Your task to perform on an android device: turn pop-ups on in chrome Image 0: 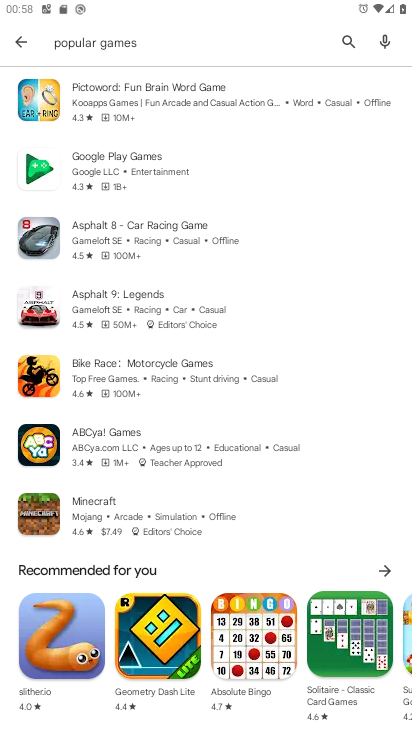
Step 0: press home button
Your task to perform on an android device: turn pop-ups on in chrome Image 1: 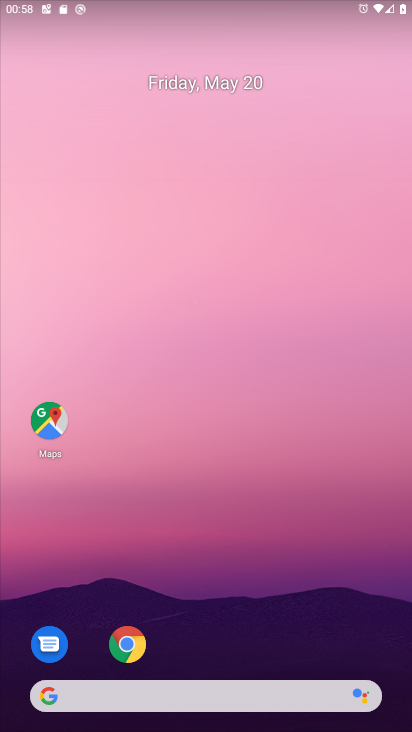
Step 1: click (127, 644)
Your task to perform on an android device: turn pop-ups on in chrome Image 2: 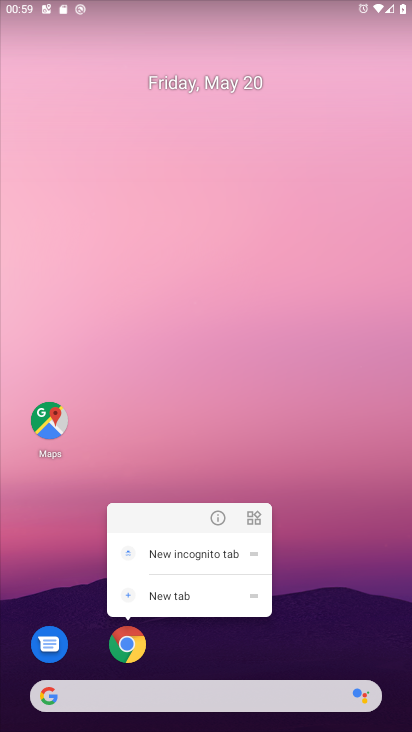
Step 2: click (127, 644)
Your task to perform on an android device: turn pop-ups on in chrome Image 3: 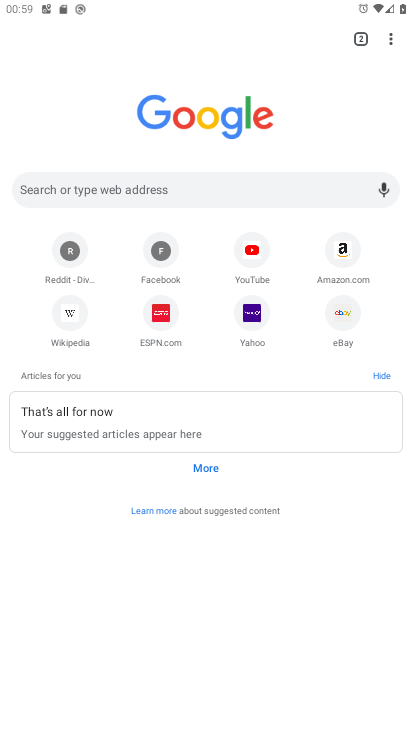
Step 3: click (392, 35)
Your task to perform on an android device: turn pop-ups on in chrome Image 4: 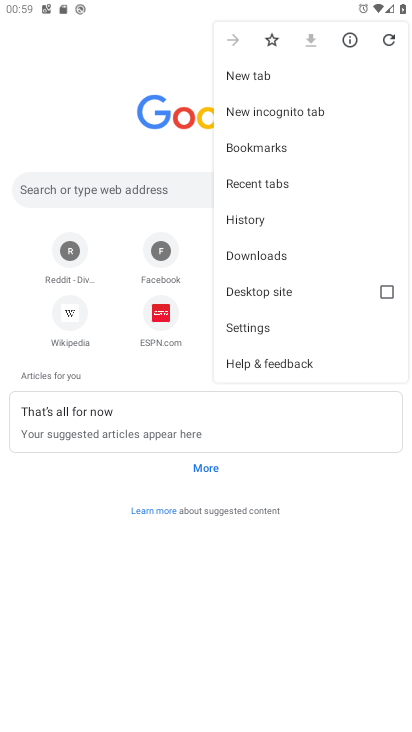
Step 4: click (246, 329)
Your task to perform on an android device: turn pop-ups on in chrome Image 5: 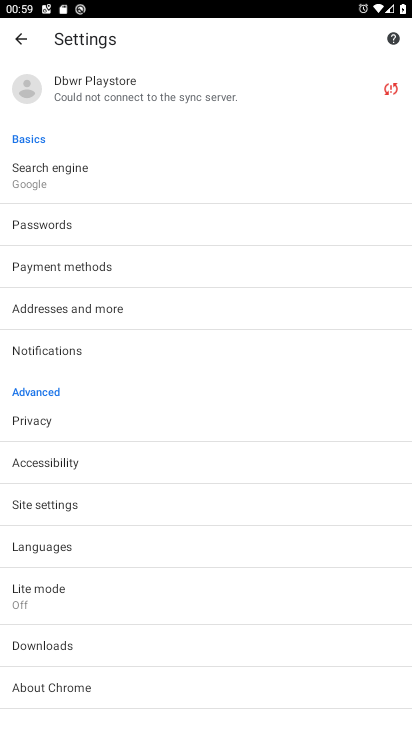
Step 5: click (42, 512)
Your task to perform on an android device: turn pop-ups on in chrome Image 6: 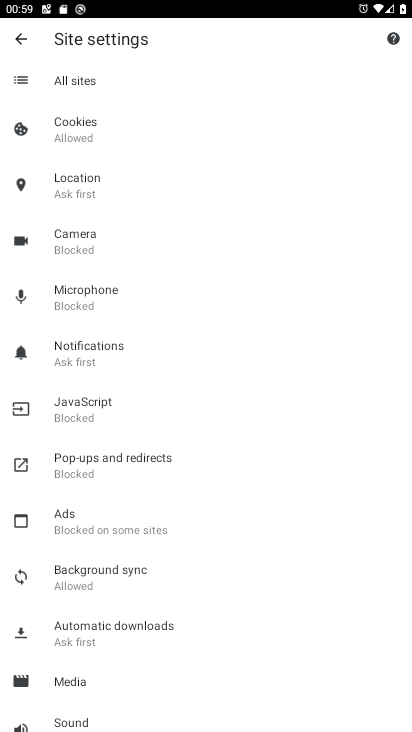
Step 6: click (101, 462)
Your task to perform on an android device: turn pop-ups on in chrome Image 7: 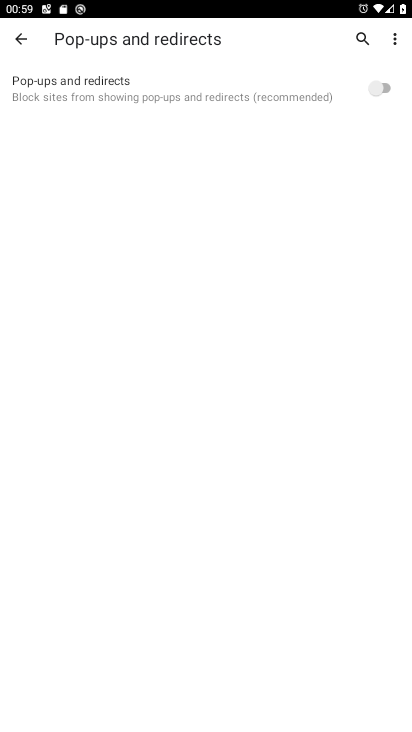
Step 7: click (380, 79)
Your task to perform on an android device: turn pop-ups on in chrome Image 8: 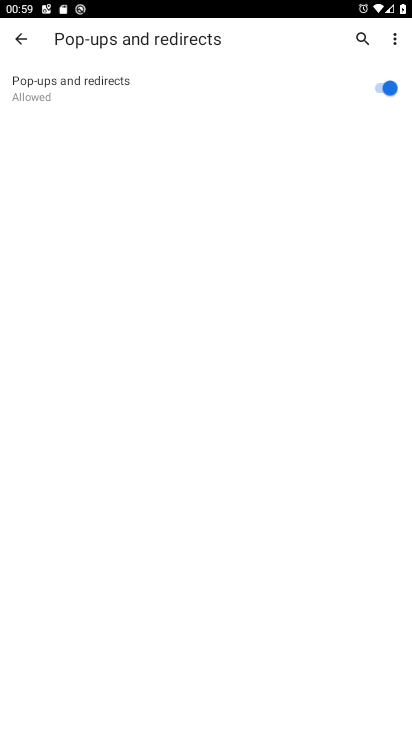
Step 8: task complete